Your task to perform on an android device: Check the news Image 0: 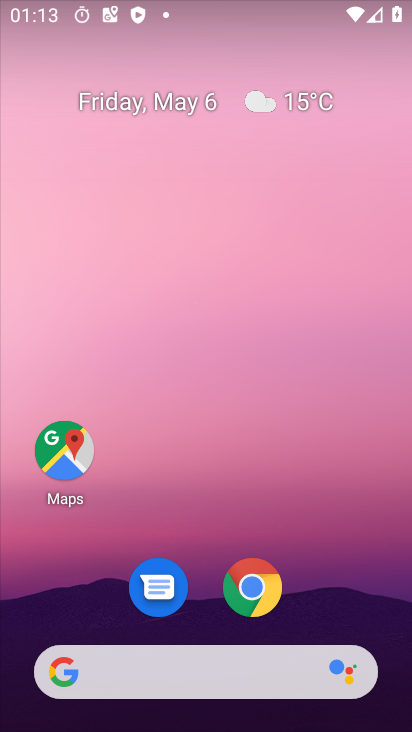
Step 0: click (257, 236)
Your task to perform on an android device: Check the news Image 1: 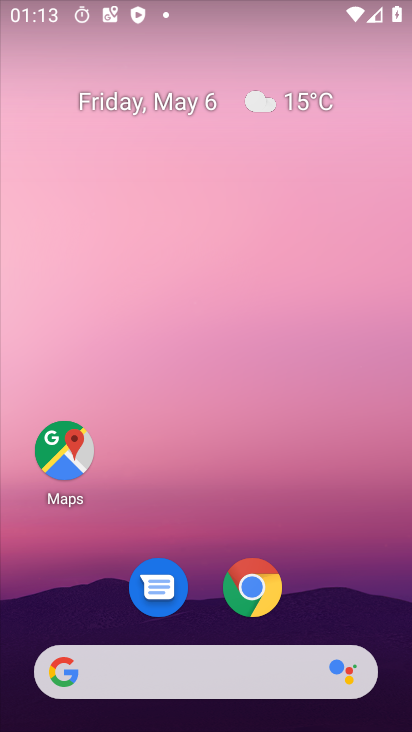
Step 1: task complete